Your task to perform on an android device: Open Chrome and go to settings Image 0: 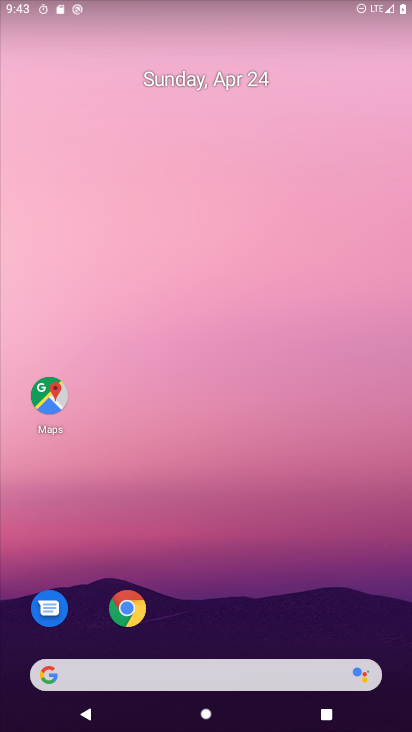
Step 0: click (135, 604)
Your task to perform on an android device: Open Chrome and go to settings Image 1: 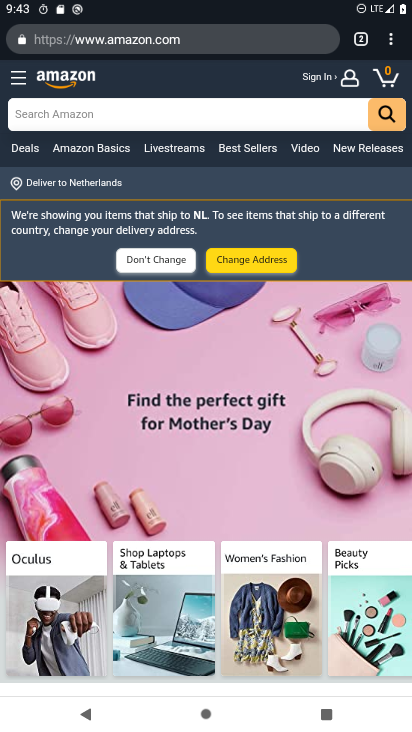
Step 1: click (393, 40)
Your task to perform on an android device: Open Chrome and go to settings Image 2: 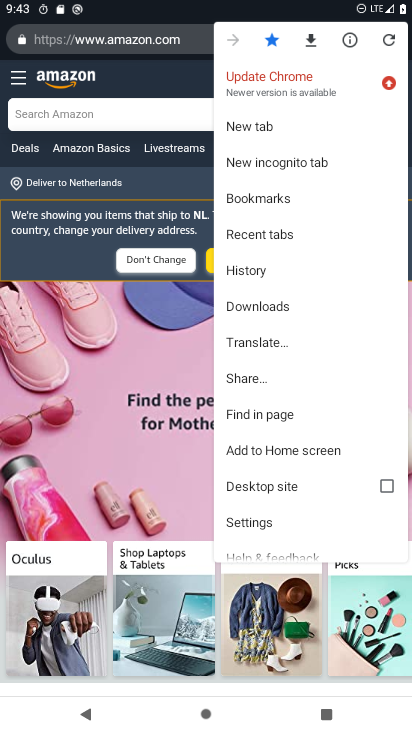
Step 2: click (282, 516)
Your task to perform on an android device: Open Chrome and go to settings Image 3: 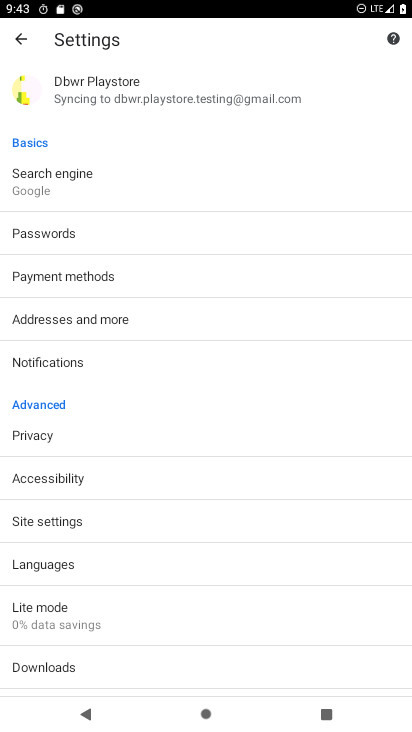
Step 3: task complete